Your task to perform on an android device: star an email in the gmail app Image 0: 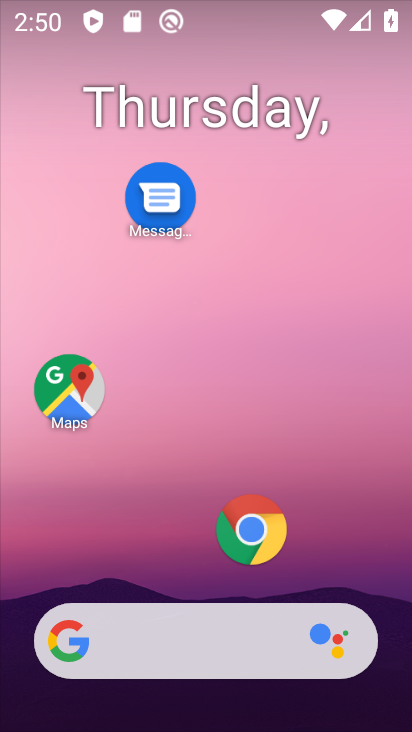
Step 0: drag from (136, 545) to (170, 246)
Your task to perform on an android device: star an email in the gmail app Image 1: 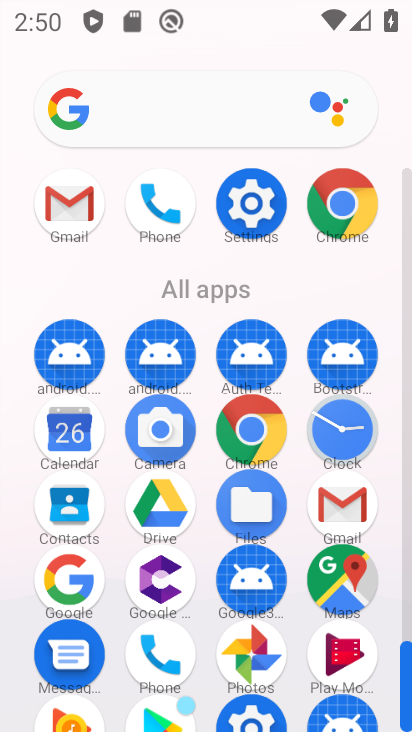
Step 1: click (353, 507)
Your task to perform on an android device: star an email in the gmail app Image 2: 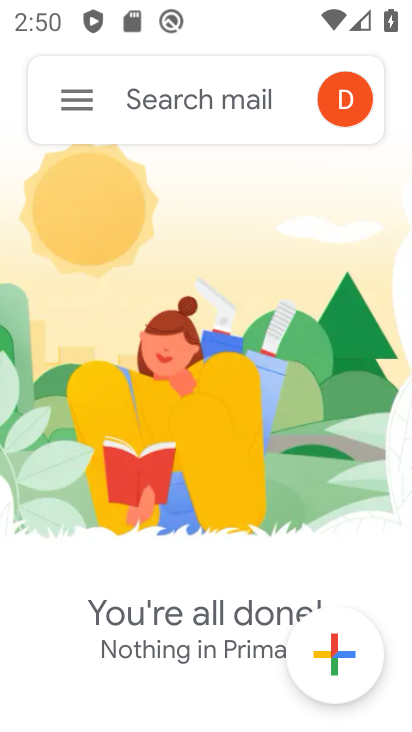
Step 2: click (65, 104)
Your task to perform on an android device: star an email in the gmail app Image 3: 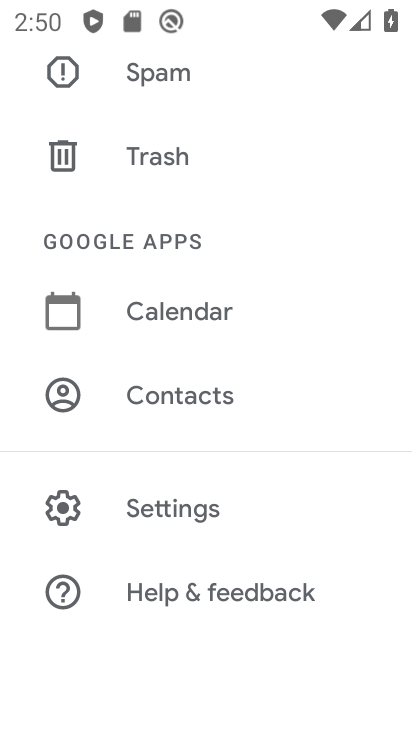
Step 3: drag from (200, 244) to (230, 698)
Your task to perform on an android device: star an email in the gmail app Image 4: 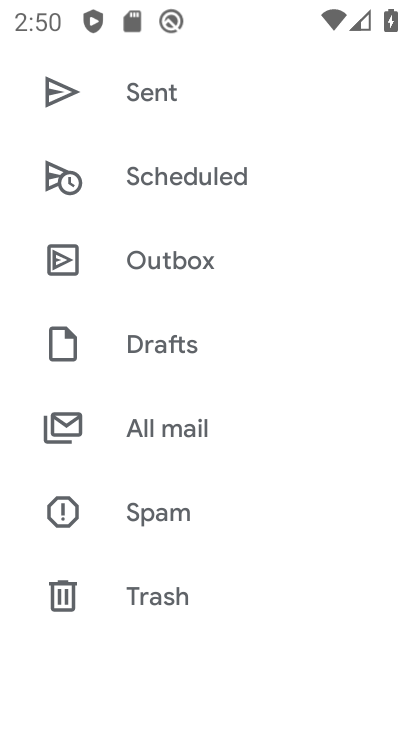
Step 4: click (175, 439)
Your task to perform on an android device: star an email in the gmail app Image 5: 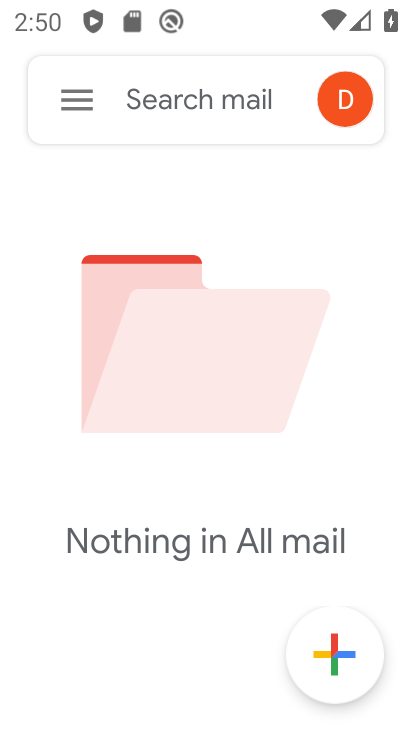
Step 5: task complete